Your task to perform on an android device: make emails show in primary in the gmail app Image 0: 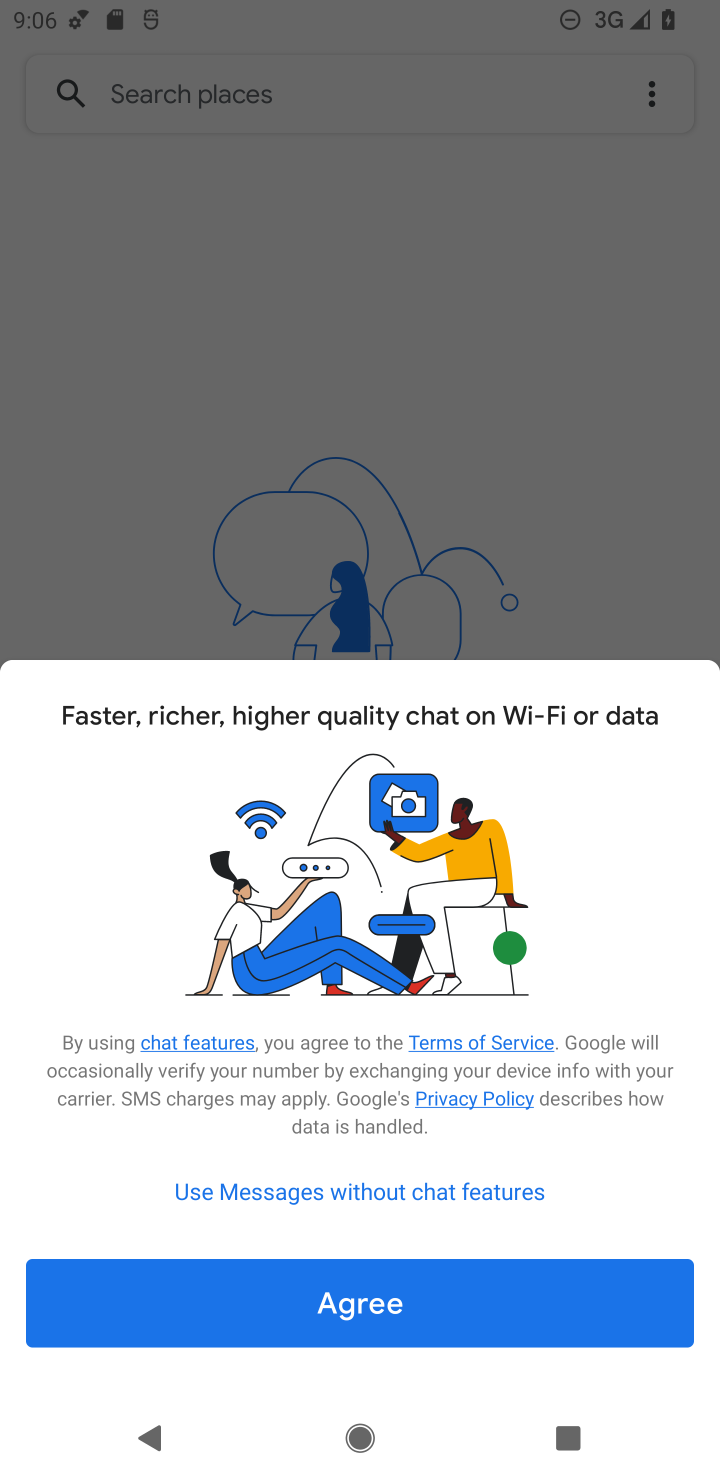
Step 0: press back button
Your task to perform on an android device: make emails show in primary in the gmail app Image 1: 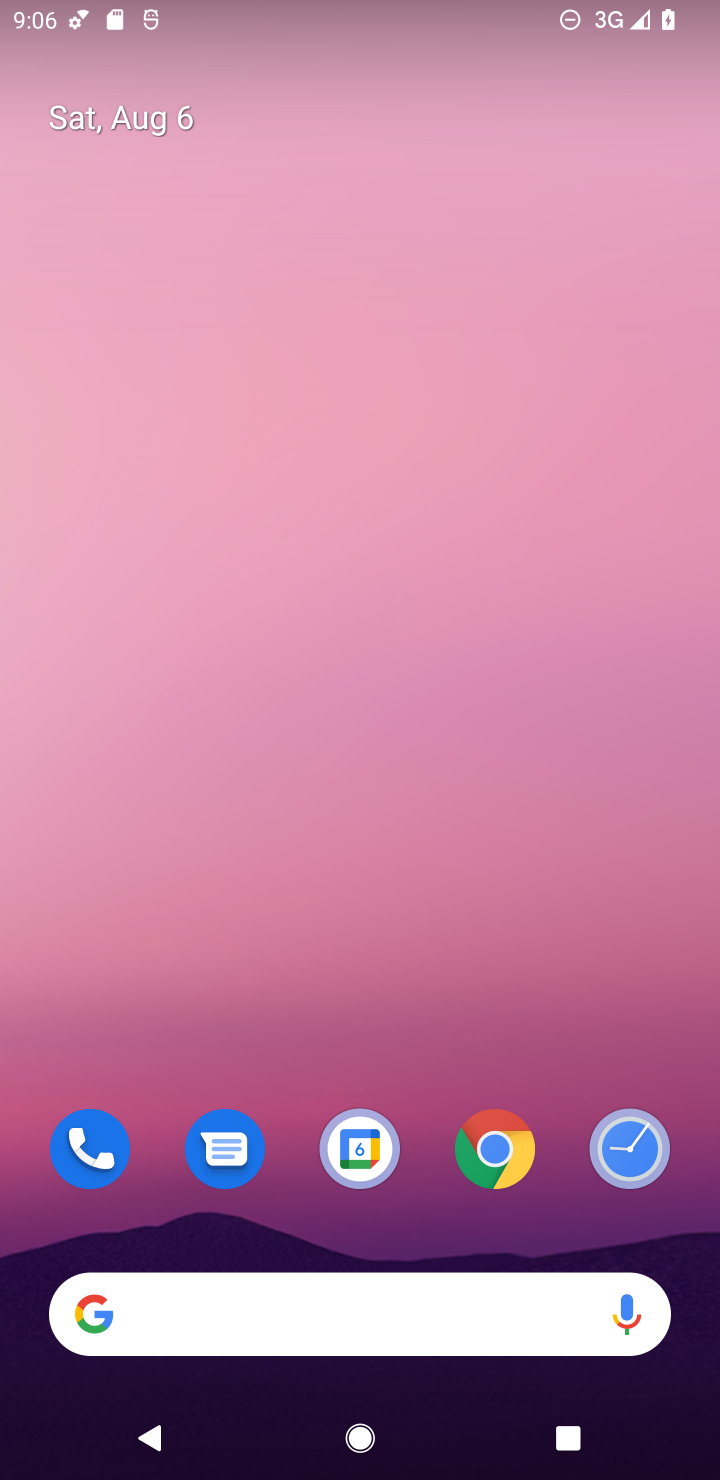
Step 1: drag from (354, 1279) to (385, 502)
Your task to perform on an android device: make emails show in primary in the gmail app Image 2: 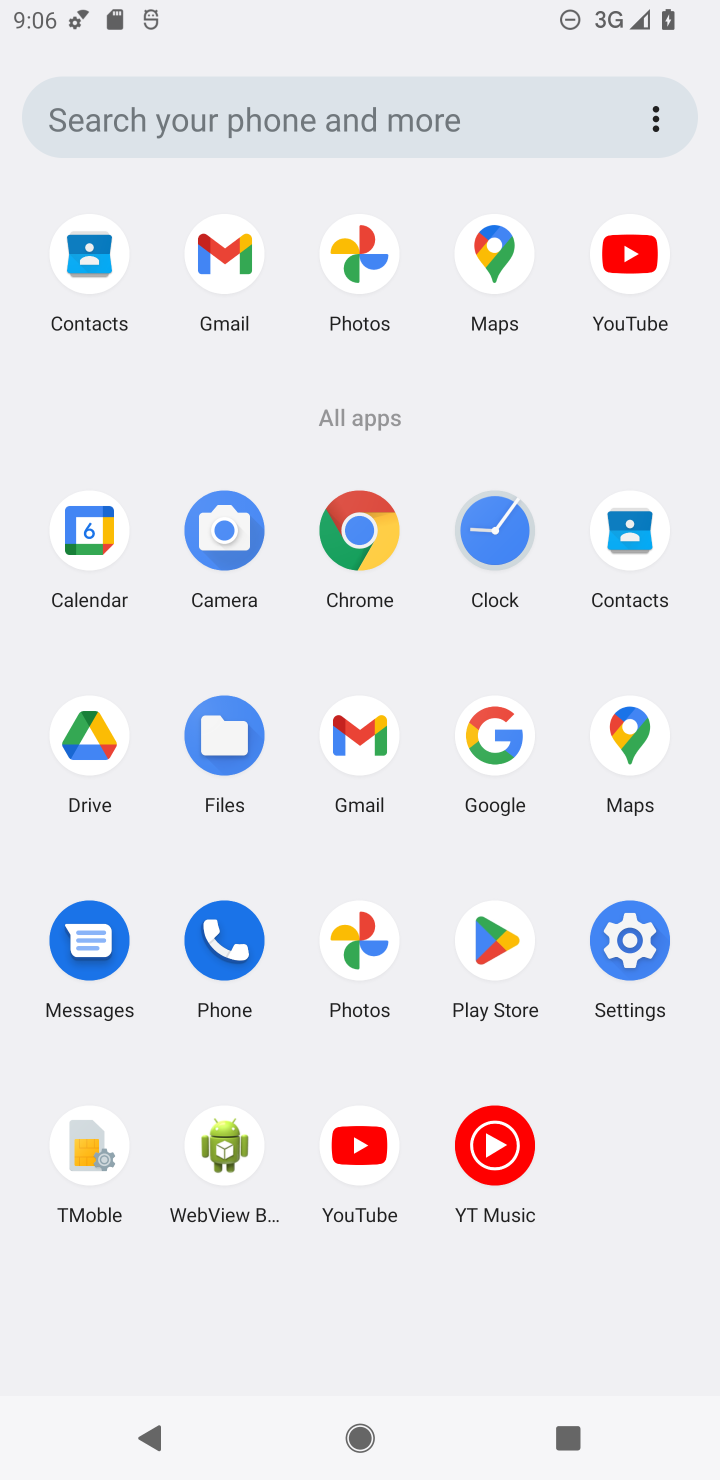
Step 2: click (361, 772)
Your task to perform on an android device: make emails show in primary in the gmail app Image 3: 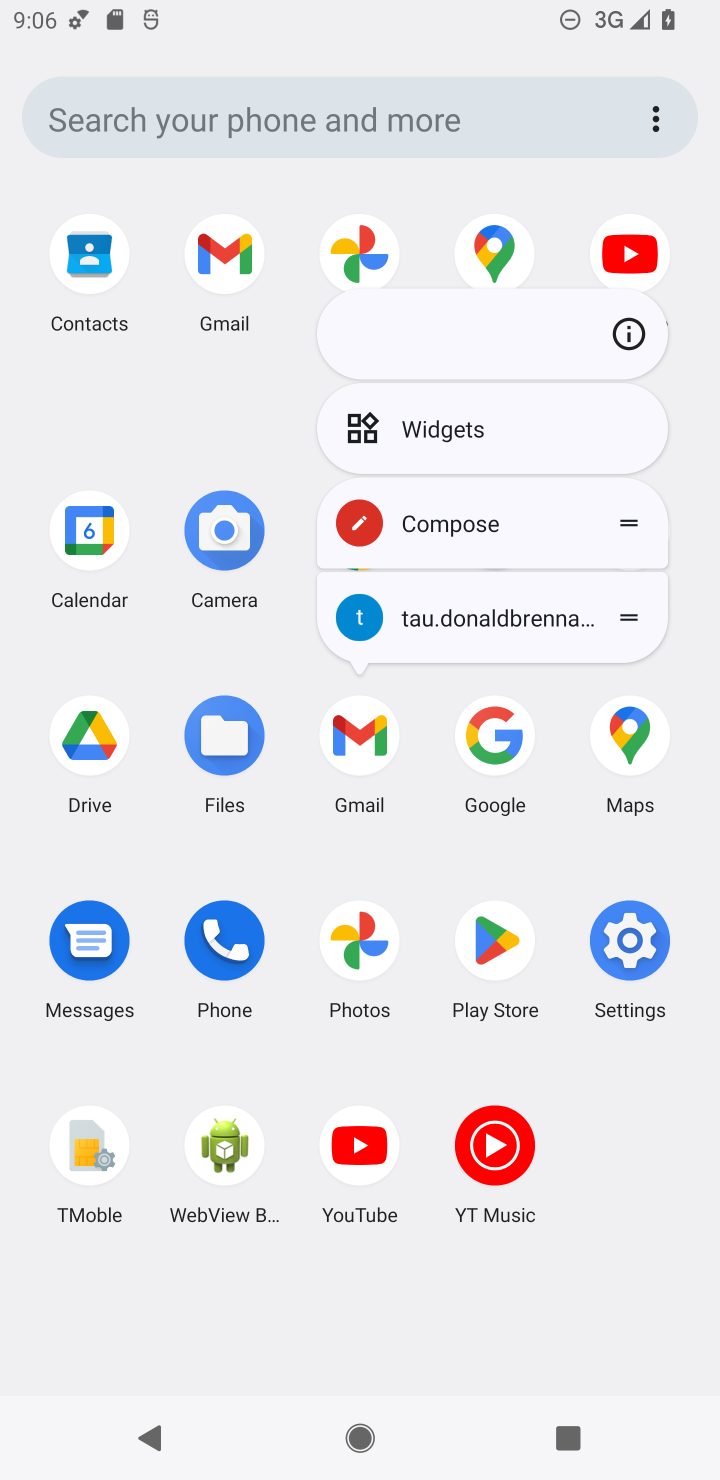
Step 3: click (361, 726)
Your task to perform on an android device: make emails show in primary in the gmail app Image 4: 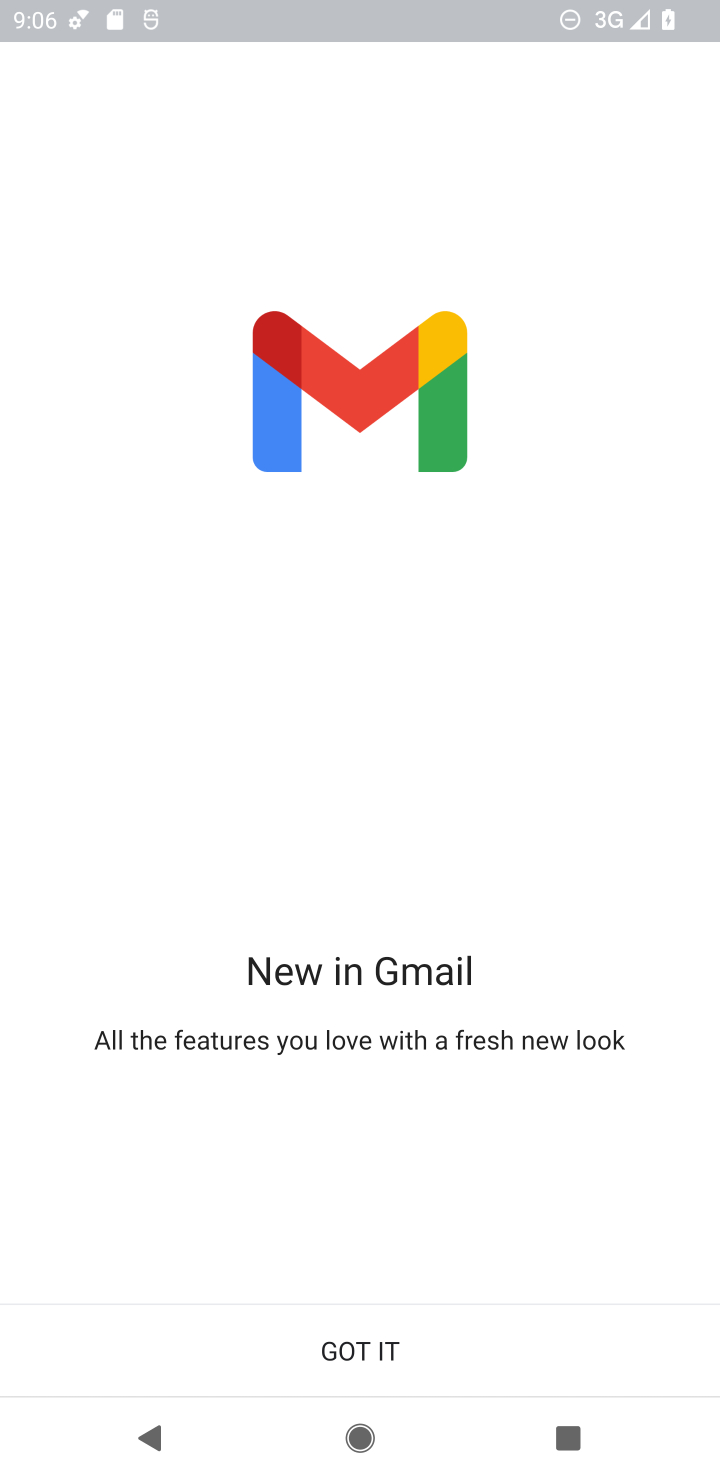
Step 4: click (433, 1339)
Your task to perform on an android device: make emails show in primary in the gmail app Image 5: 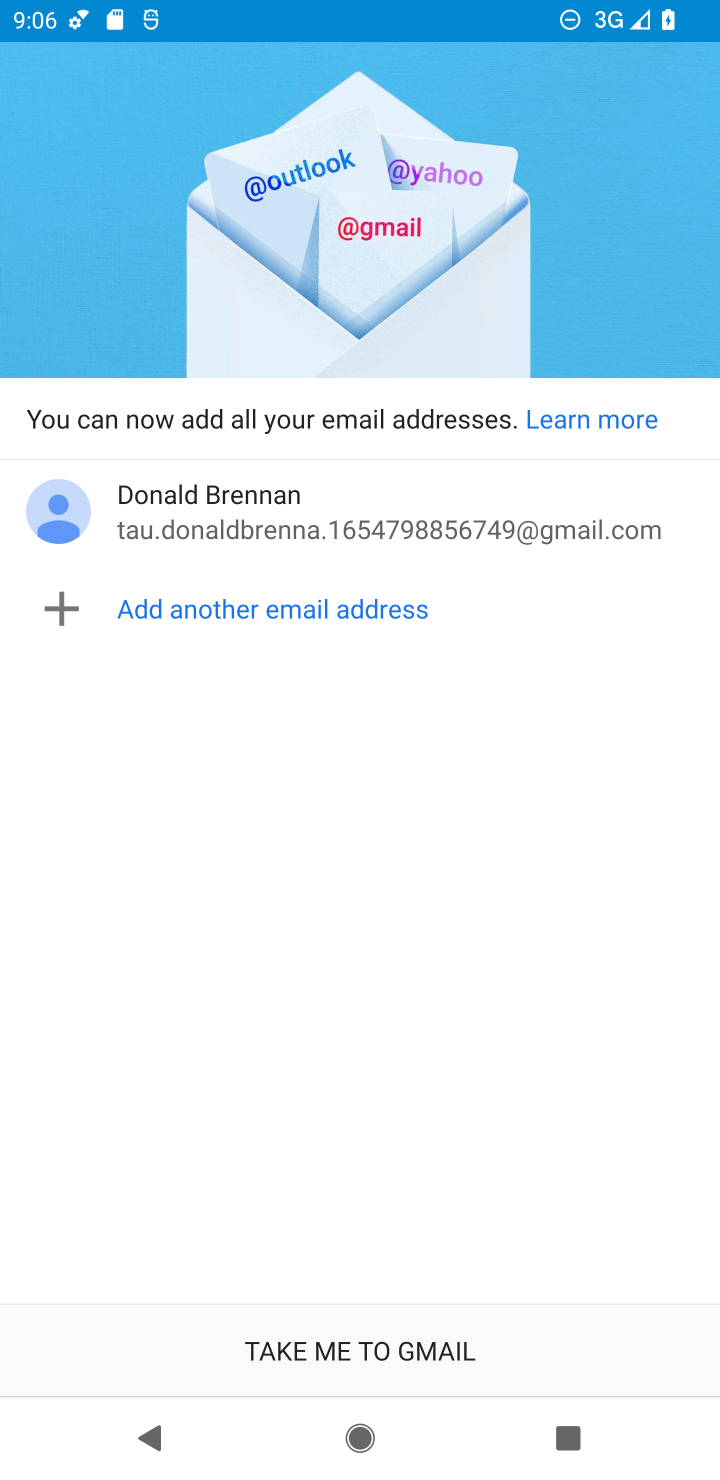
Step 5: click (433, 1334)
Your task to perform on an android device: make emails show in primary in the gmail app Image 6: 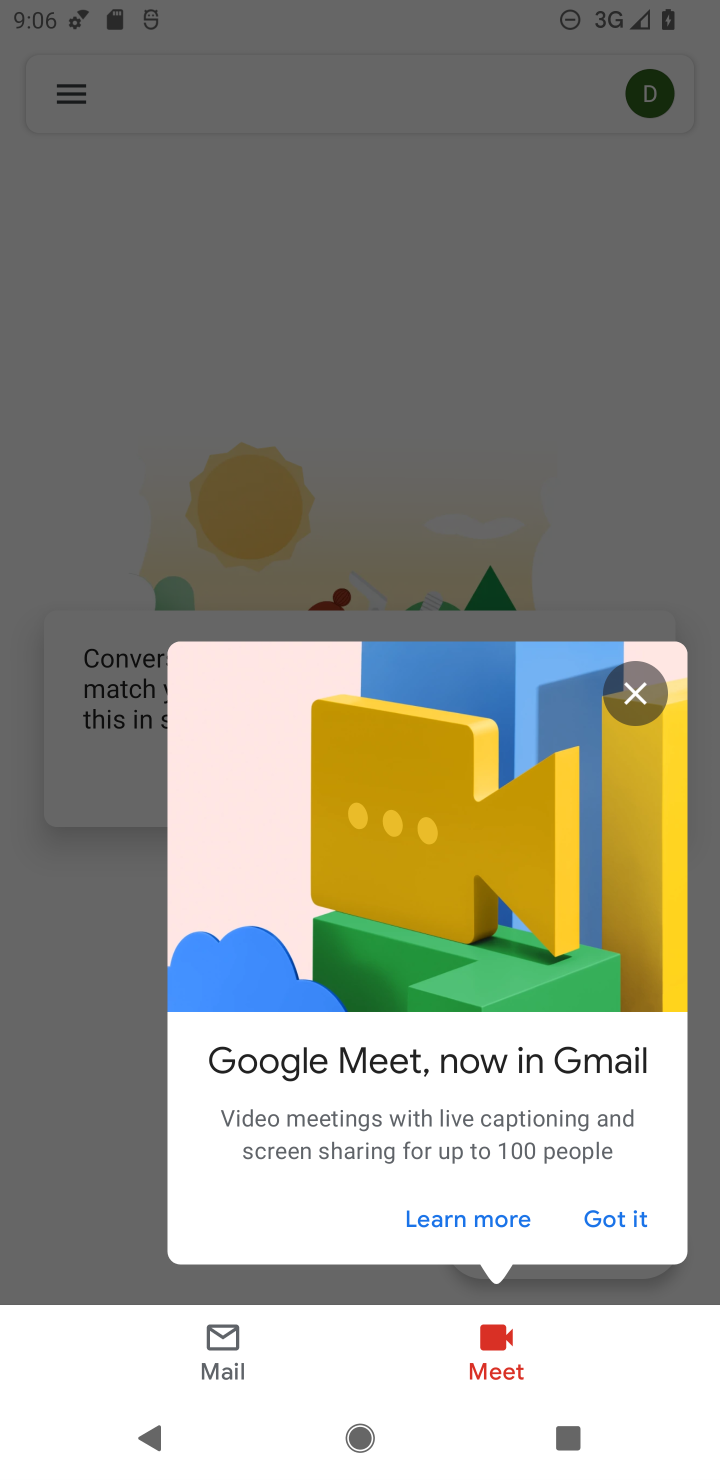
Step 6: click (621, 1212)
Your task to perform on an android device: make emails show in primary in the gmail app Image 7: 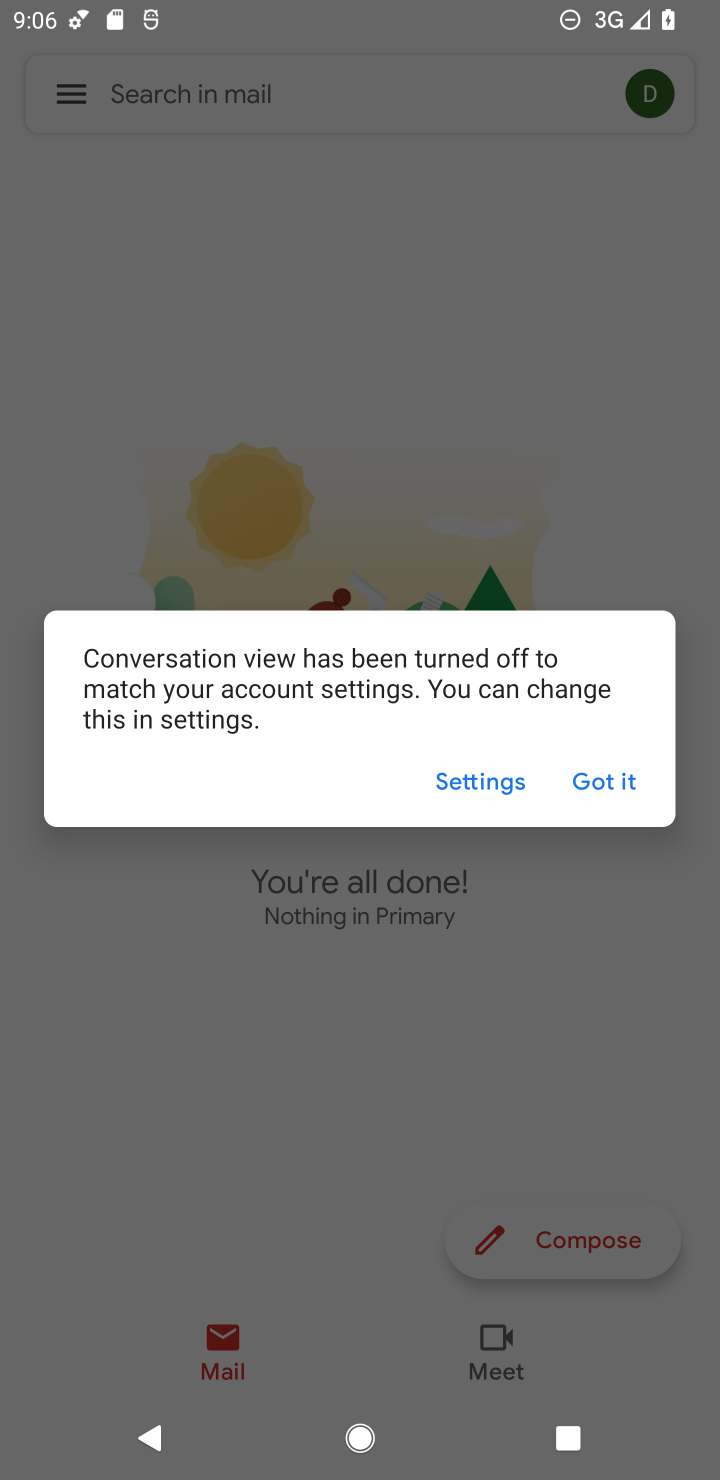
Step 7: click (621, 788)
Your task to perform on an android device: make emails show in primary in the gmail app Image 8: 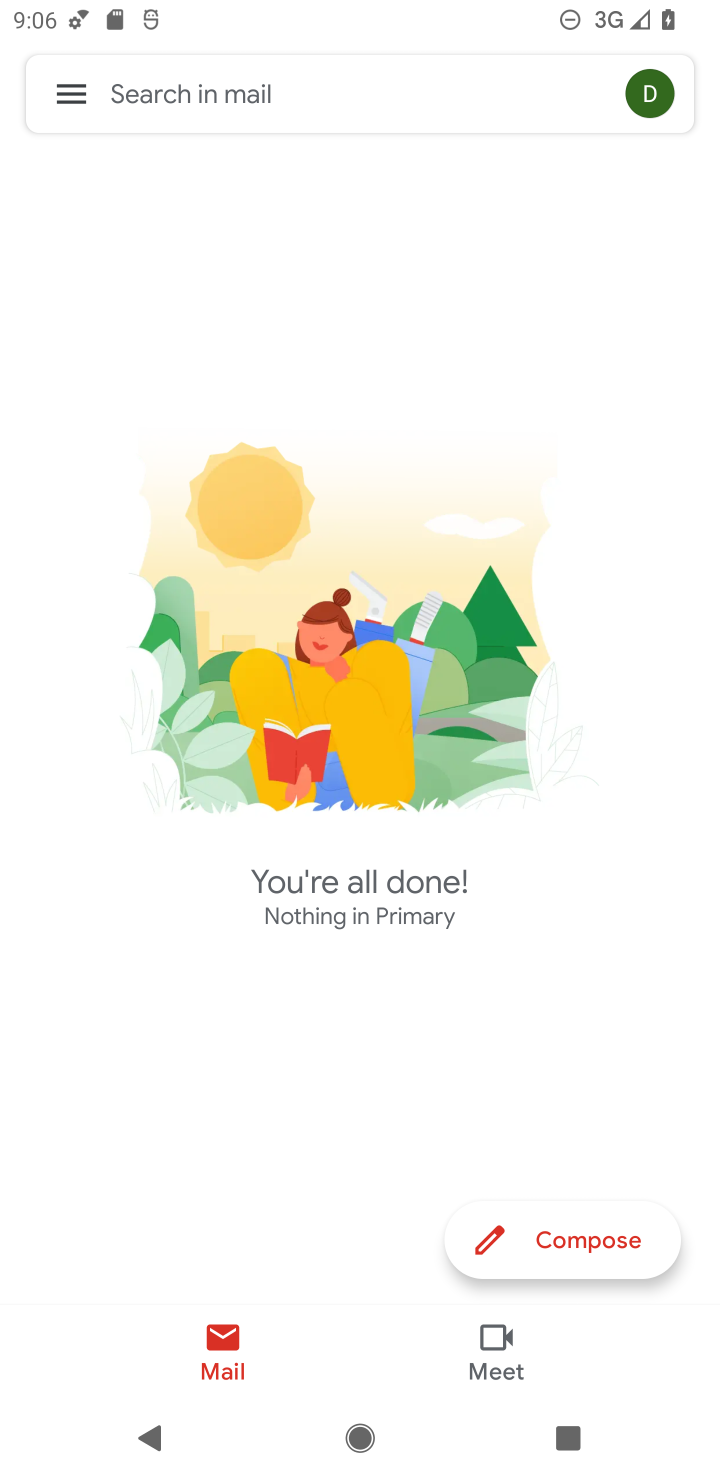
Step 8: click (64, 96)
Your task to perform on an android device: make emails show in primary in the gmail app Image 9: 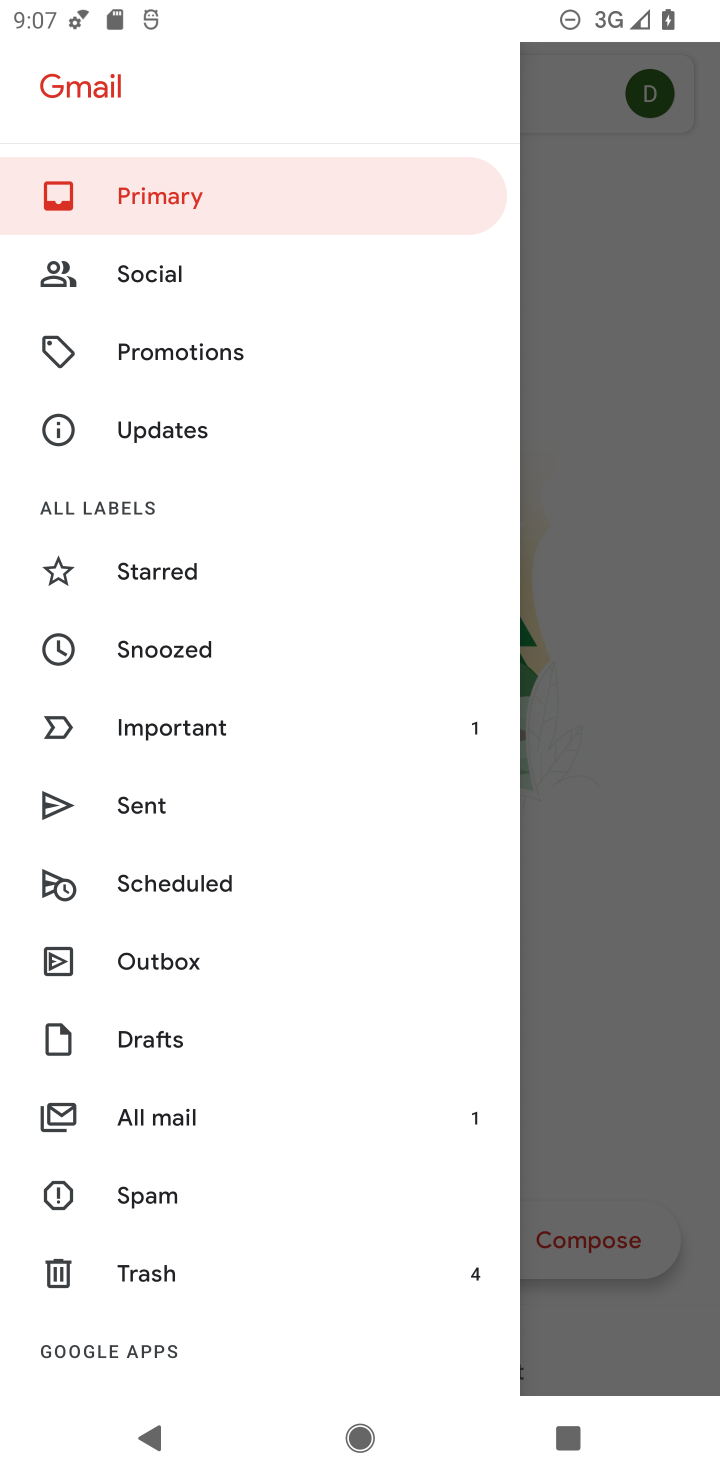
Step 9: drag from (196, 1313) to (166, 513)
Your task to perform on an android device: make emails show in primary in the gmail app Image 10: 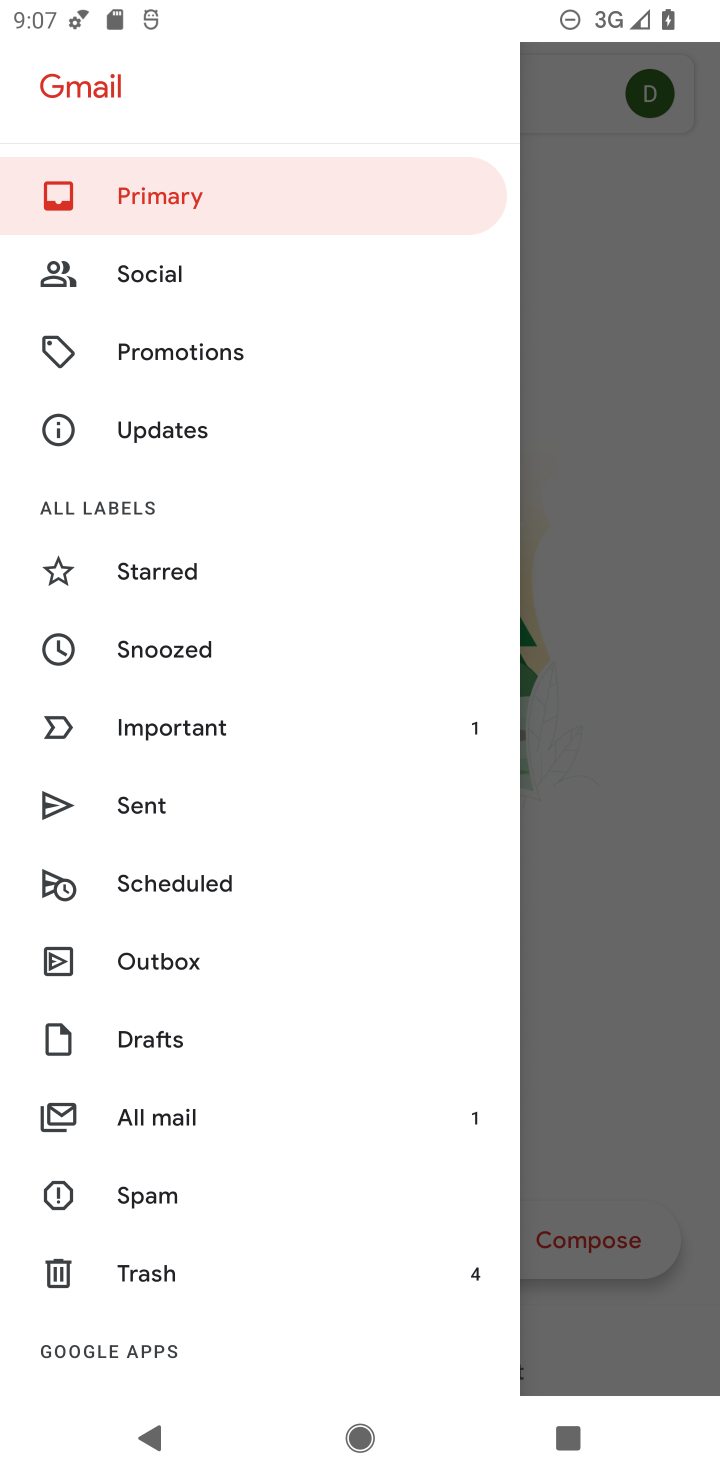
Step 10: drag from (289, 1323) to (298, 720)
Your task to perform on an android device: make emails show in primary in the gmail app Image 11: 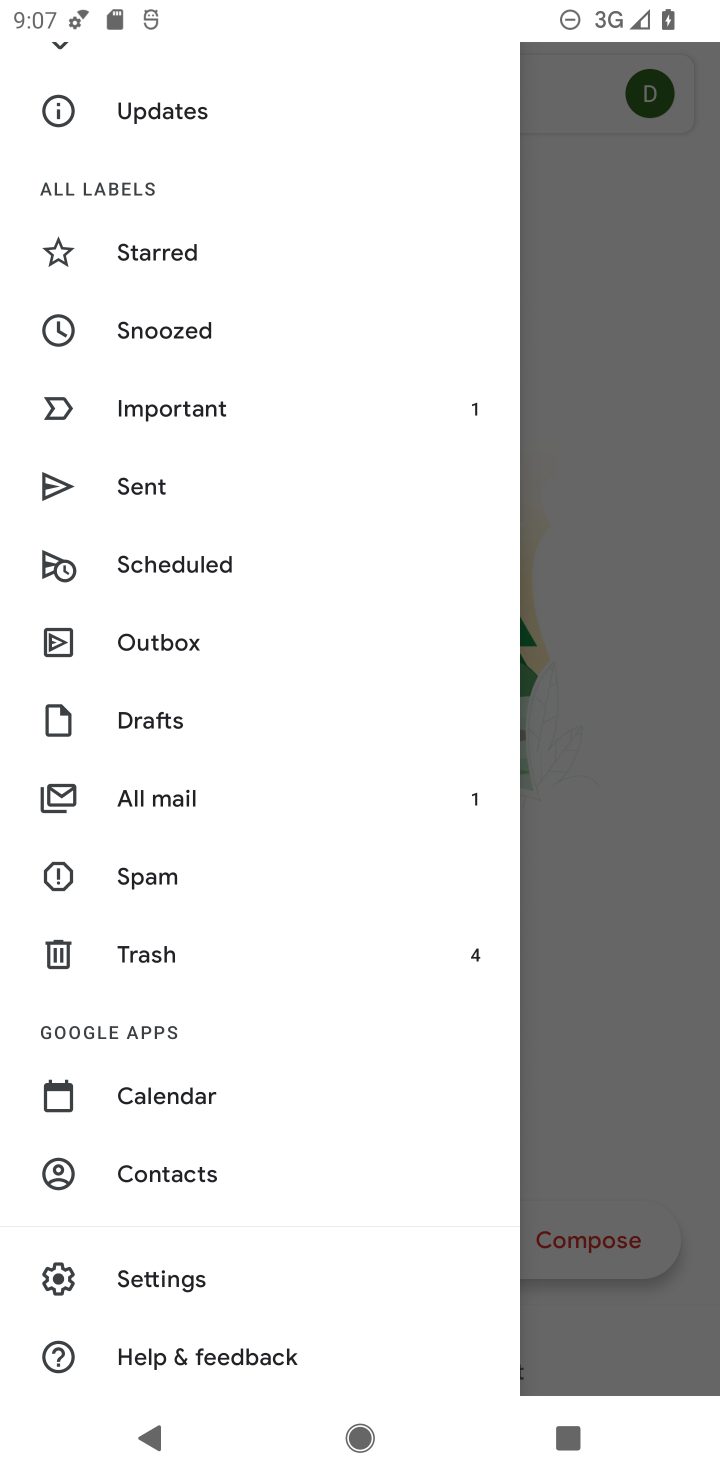
Step 11: click (183, 1287)
Your task to perform on an android device: make emails show in primary in the gmail app Image 12: 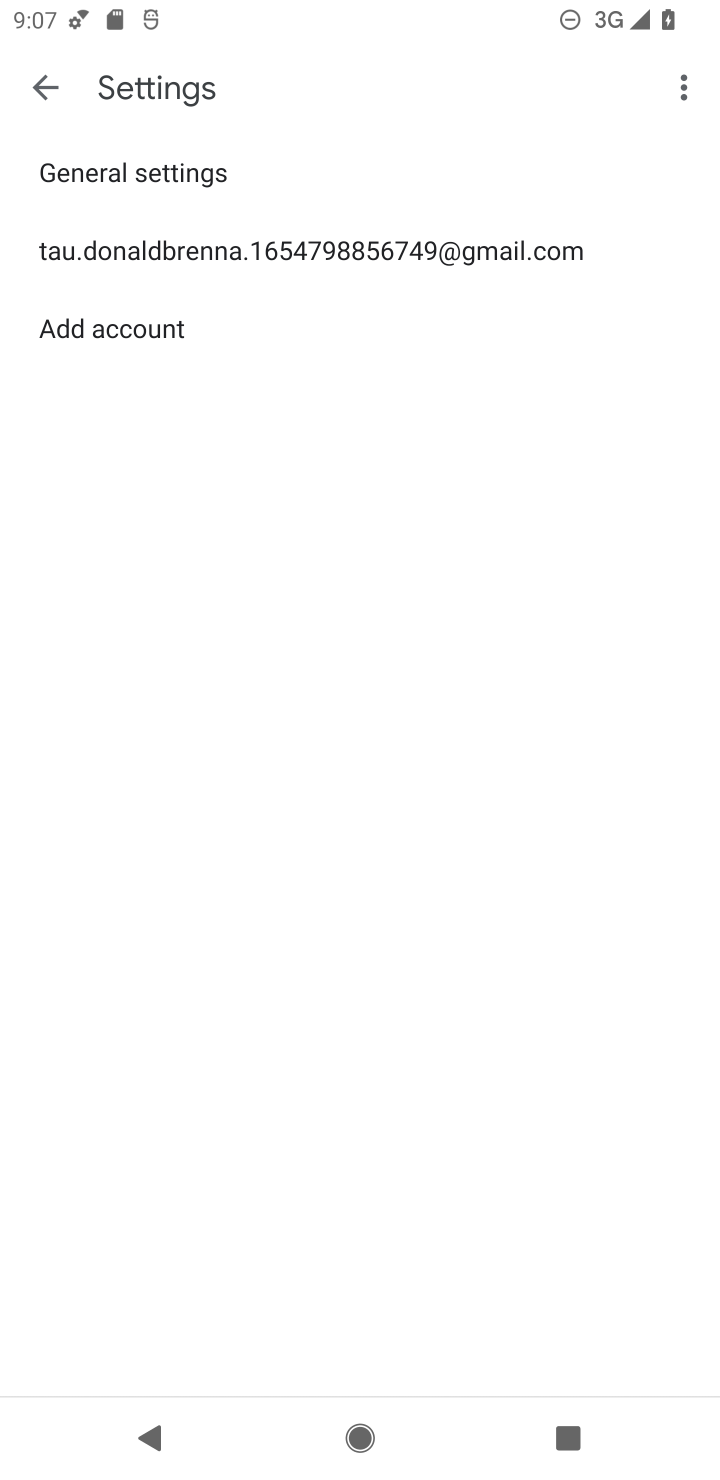
Step 12: click (125, 243)
Your task to perform on an android device: make emails show in primary in the gmail app Image 13: 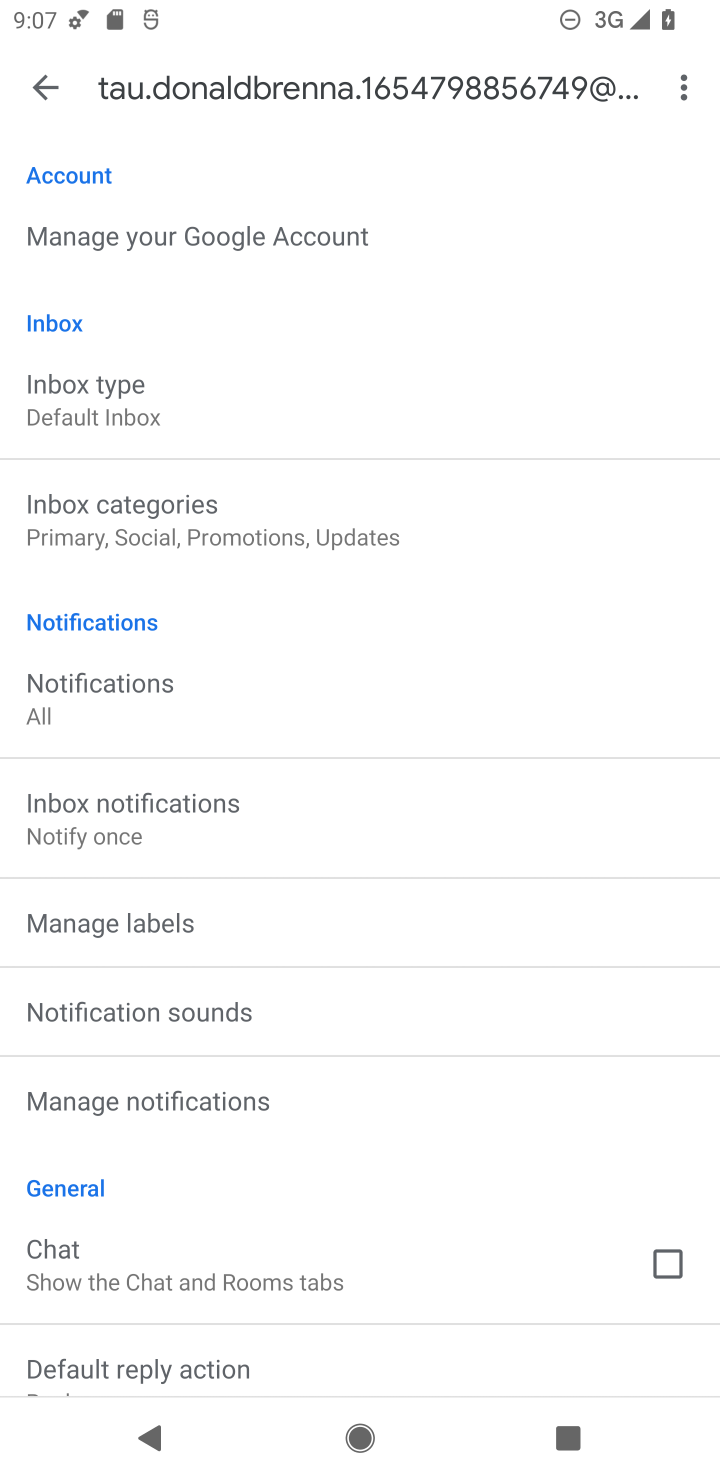
Step 13: click (166, 413)
Your task to perform on an android device: make emails show in primary in the gmail app Image 14: 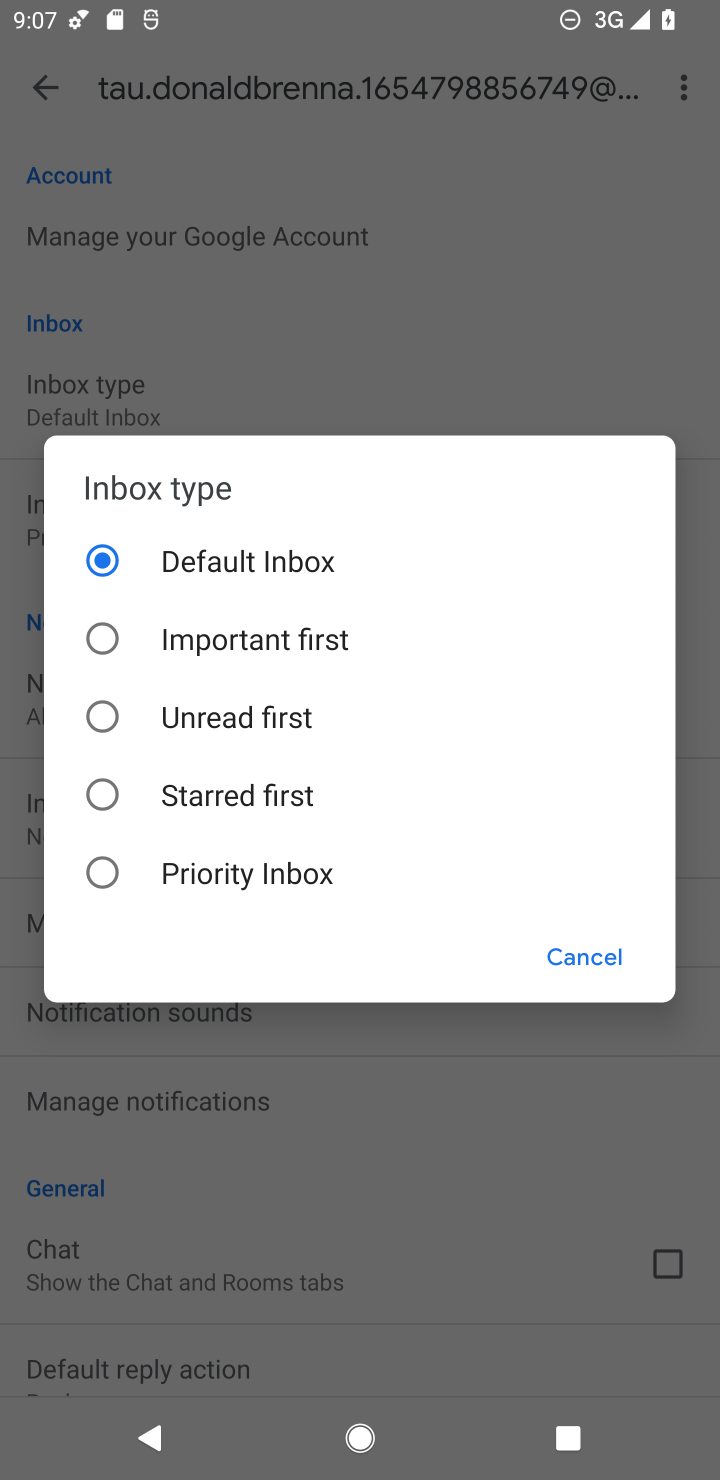
Step 14: click (208, 551)
Your task to perform on an android device: make emails show in primary in the gmail app Image 15: 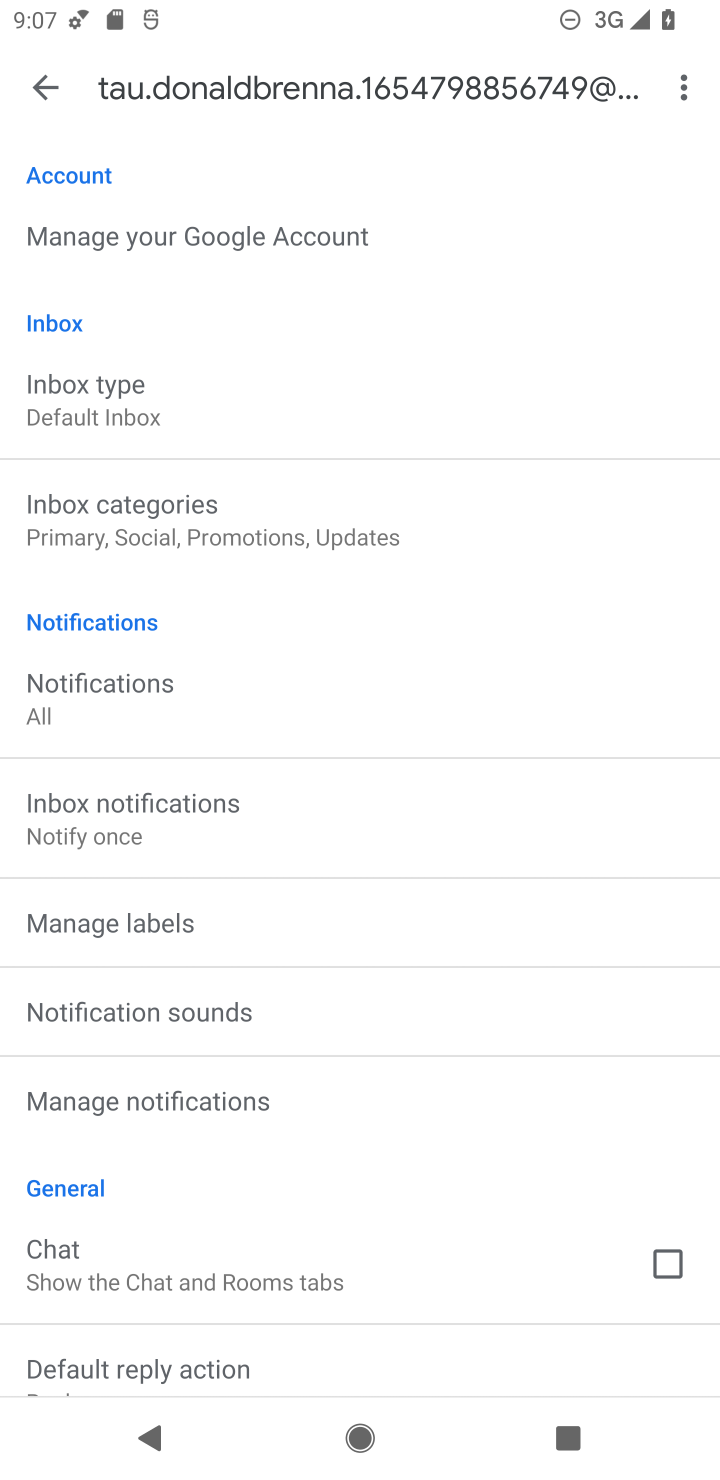
Step 15: click (228, 543)
Your task to perform on an android device: make emails show in primary in the gmail app Image 16: 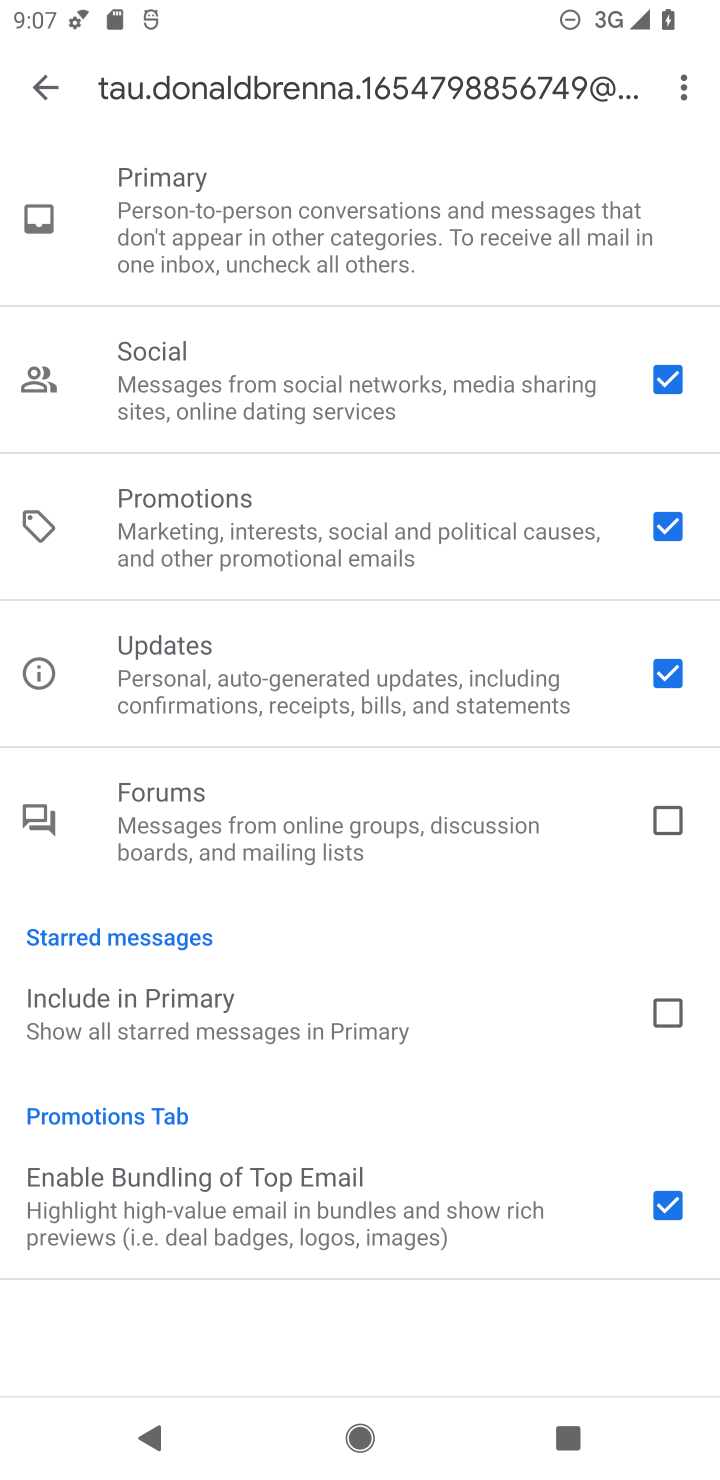
Step 16: drag from (517, 562) to (492, 1021)
Your task to perform on an android device: make emails show in primary in the gmail app Image 17: 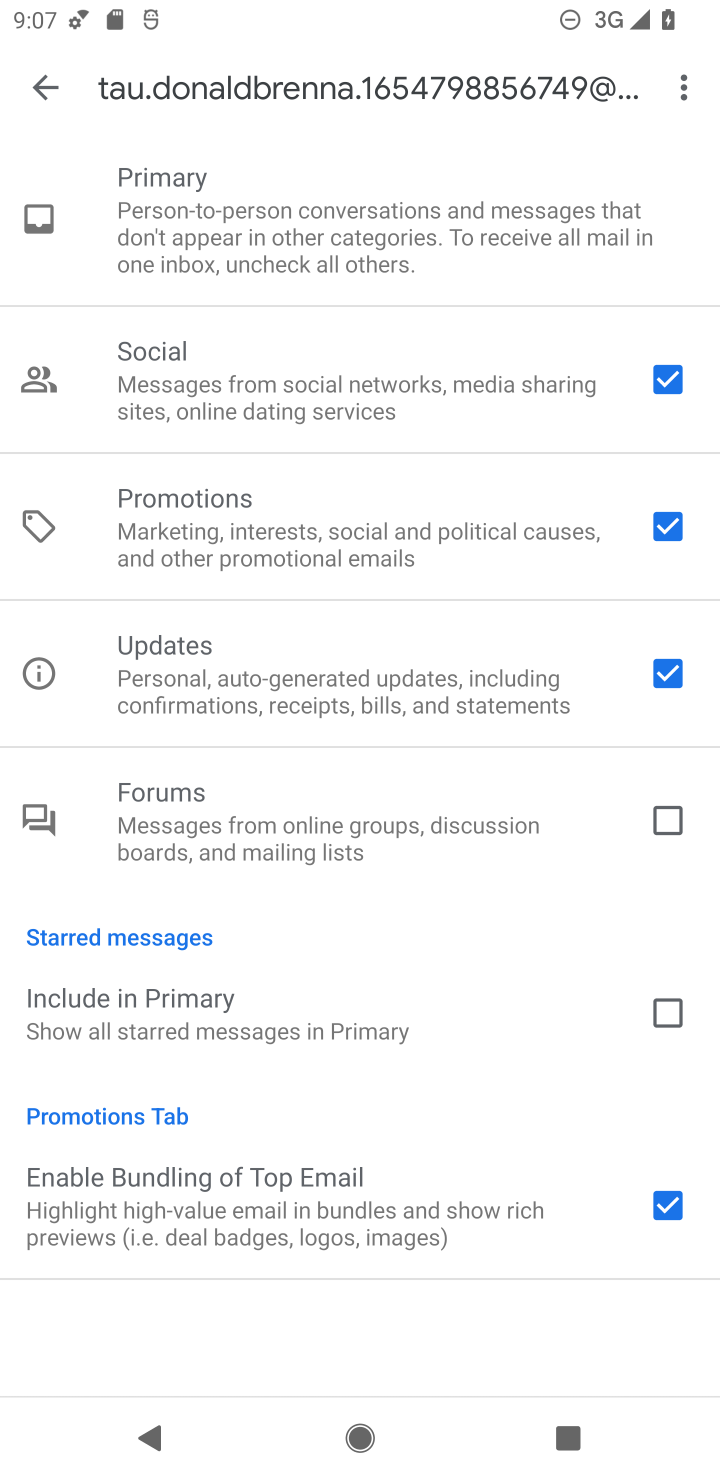
Step 17: drag from (662, 395) to (665, 520)
Your task to perform on an android device: make emails show in primary in the gmail app Image 18: 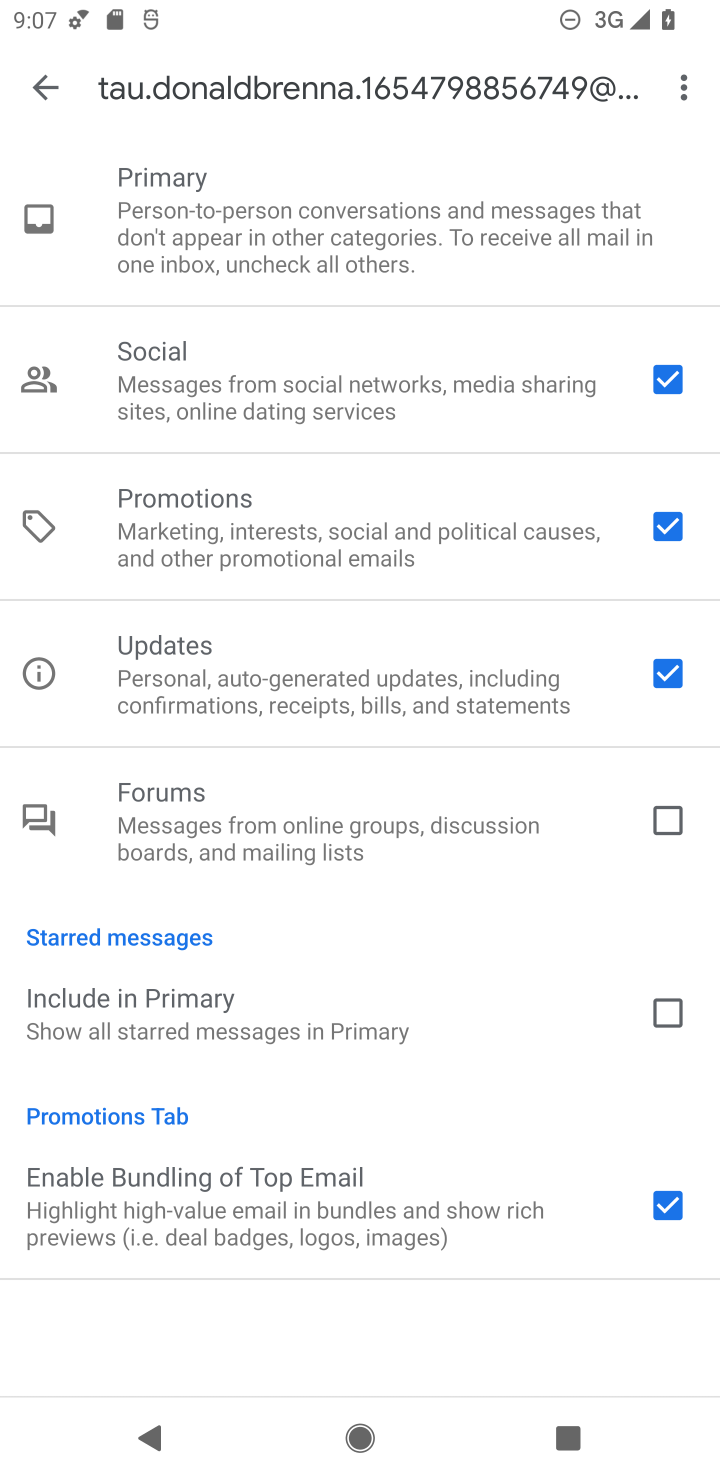
Step 18: click (663, 707)
Your task to perform on an android device: make emails show in primary in the gmail app Image 19: 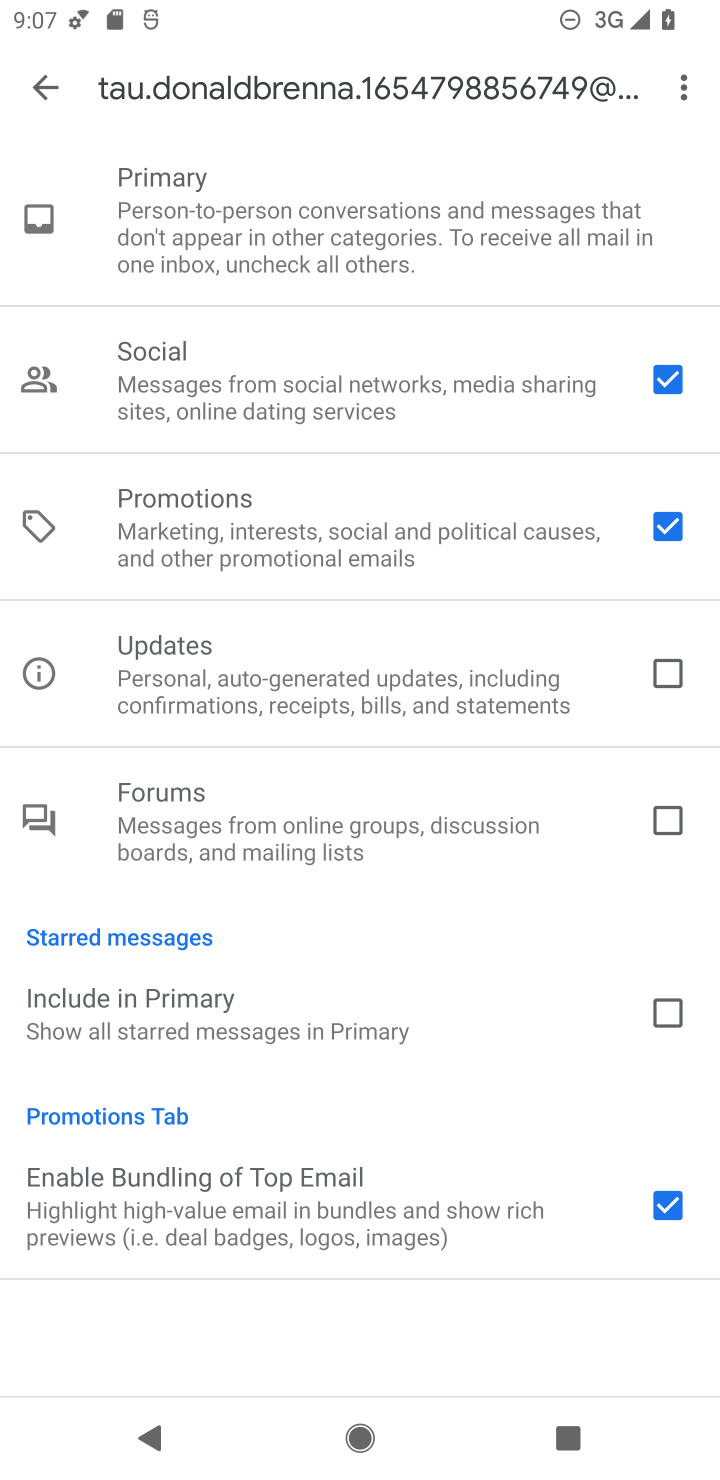
Step 19: click (662, 541)
Your task to perform on an android device: make emails show in primary in the gmail app Image 20: 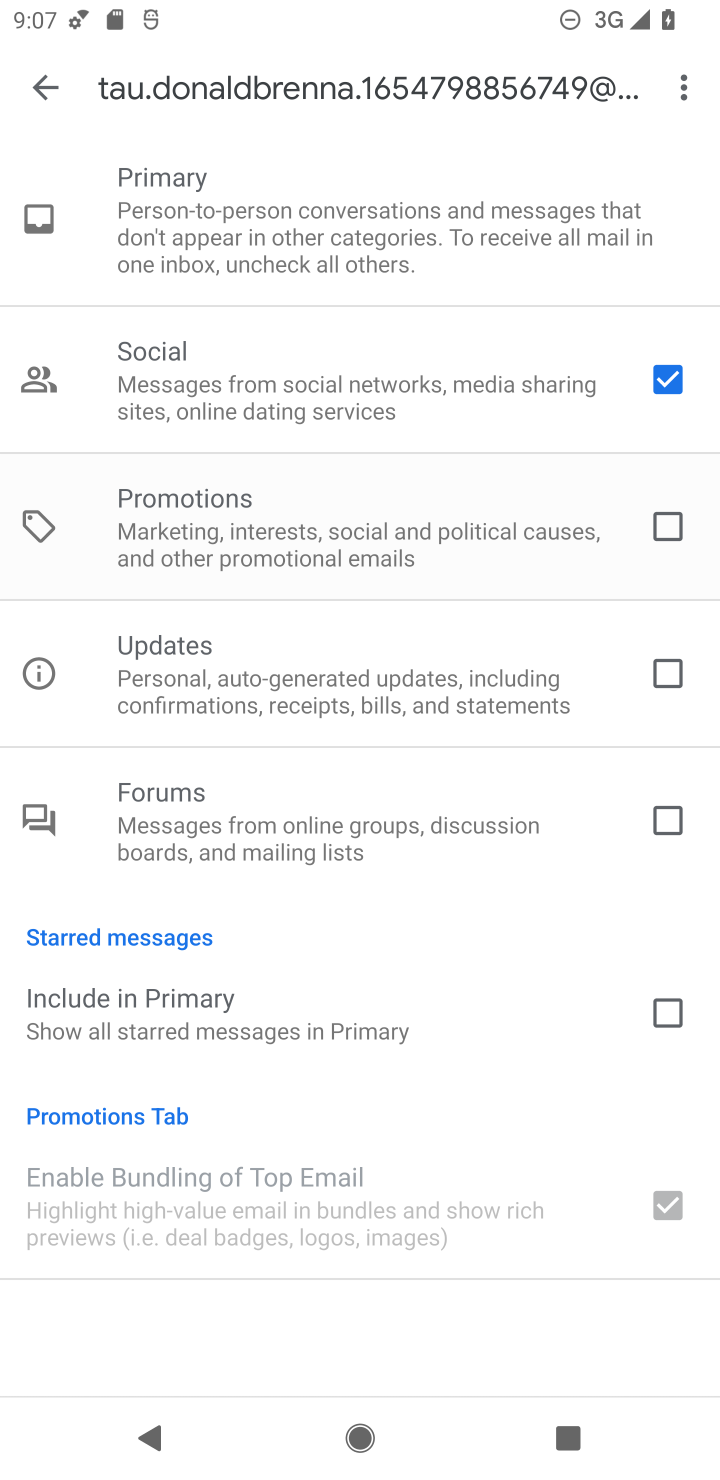
Step 20: click (676, 376)
Your task to perform on an android device: make emails show in primary in the gmail app Image 21: 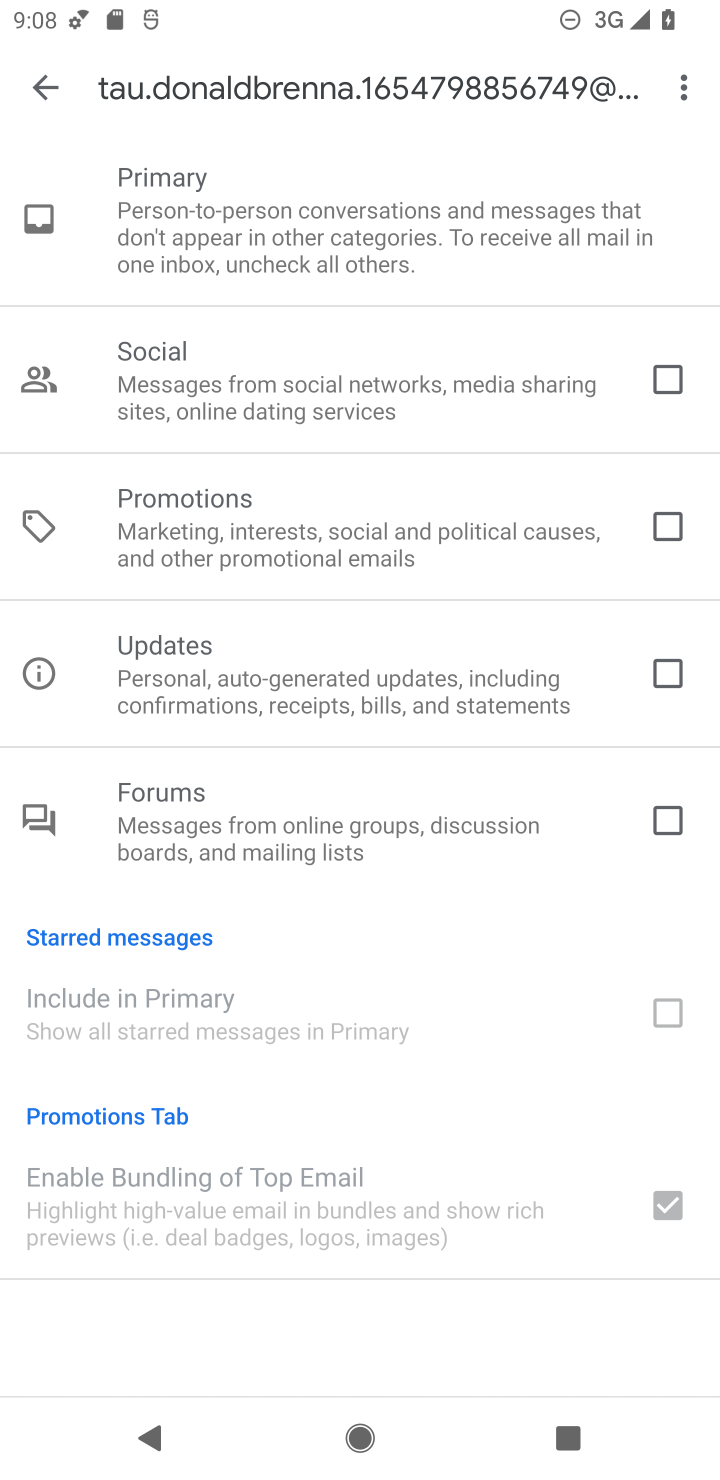
Step 21: task complete